Your task to perform on an android device: Open CNN.com Image 0: 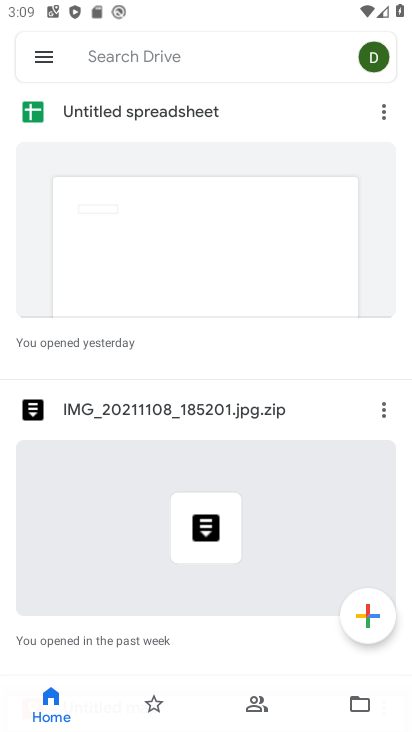
Step 0: press home button
Your task to perform on an android device: Open CNN.com Image 1: 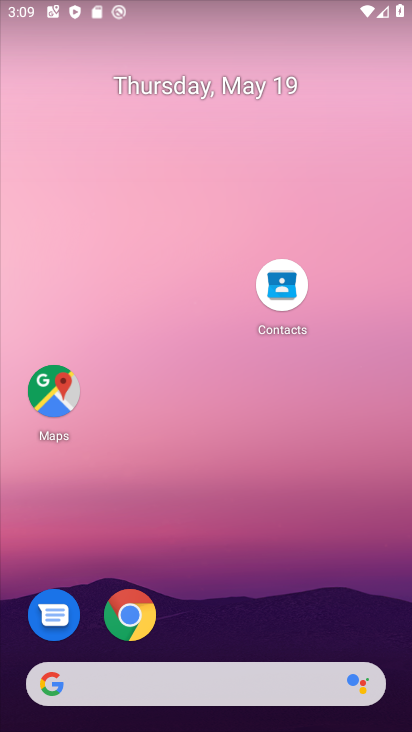
Step 1: drag from (170, 668) to (162, 135)
Your task to perform on an android device: Open CNN.com Image 2: 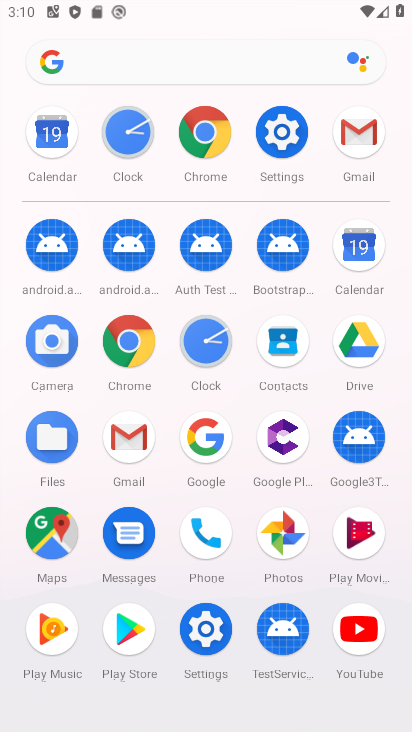
Step 2: click (210, 141)
Your task to perform on an android device: Open CNN.com Image 3: 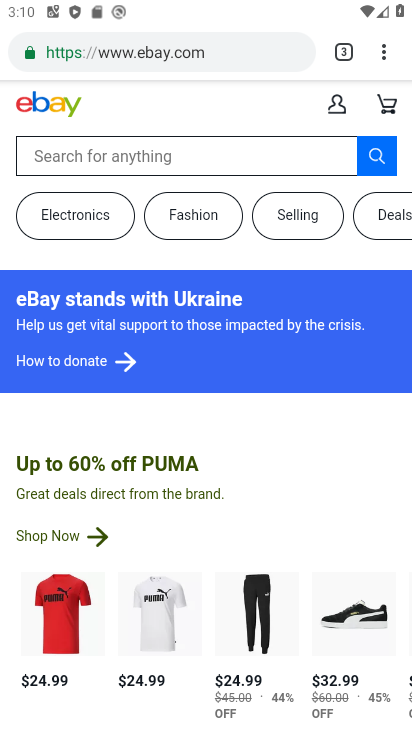
Step 3: click (240, 51)
Your task to perform on an android device: Open CNN.com Image 4: 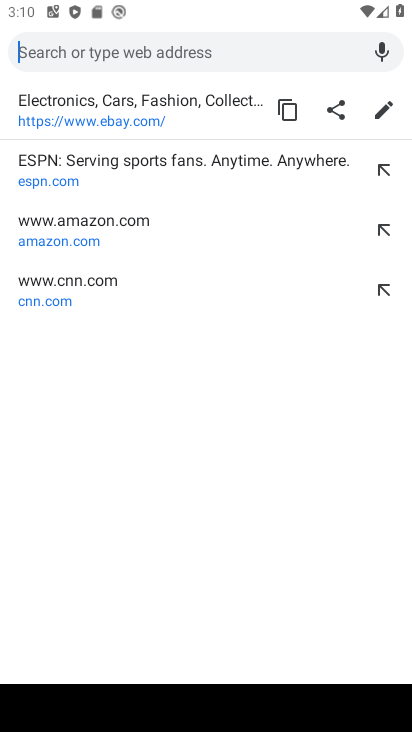
Step 4: click (157, 288)
Your task to perform on an android device: Open CNN.com Image 5: 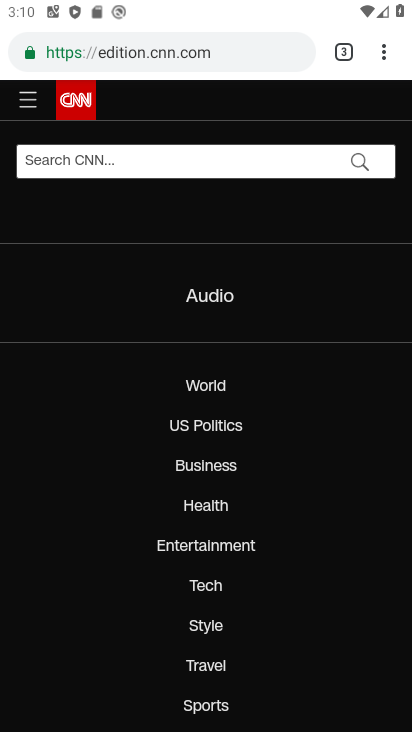
Step 5: task complete